Your task to perform on an android device: clear history in the chrome app Image 0: 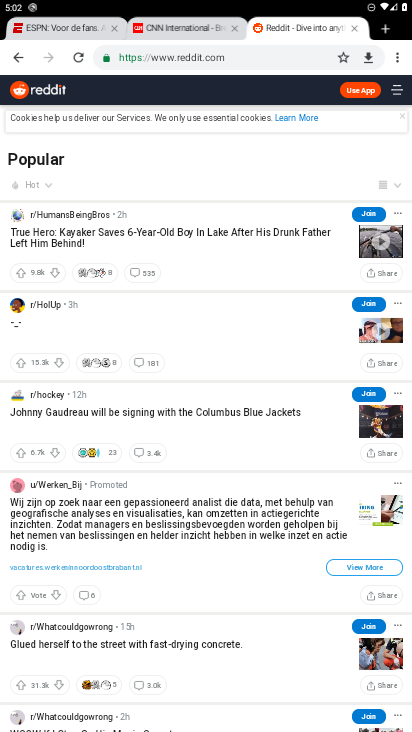
Step 0: press home button
Your task to perform on an android device: clear history in the chrome app Image 1: 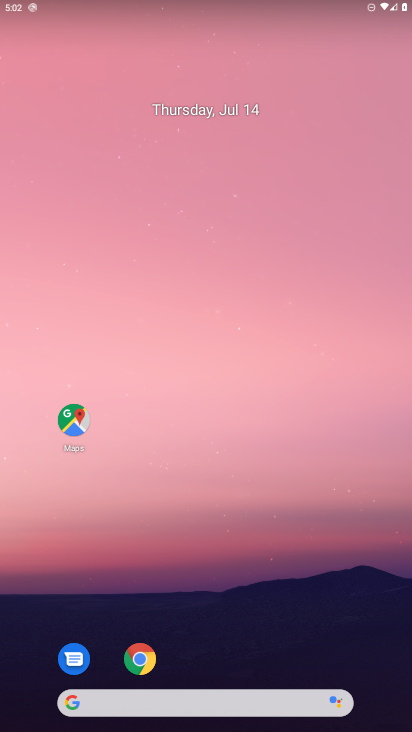
Step 1: click (145, 654)
Your task to perform on an android device: clear history in the chrome app Image 2: 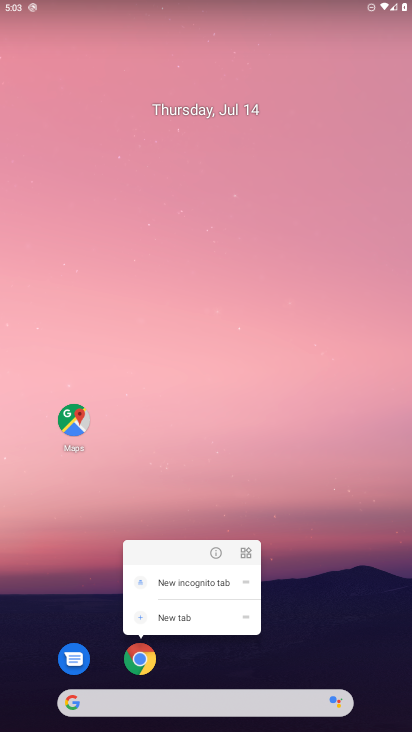
Step 2: click (145, 655)
Your task to perform on an android device: clear history in the chrome app Image 3: 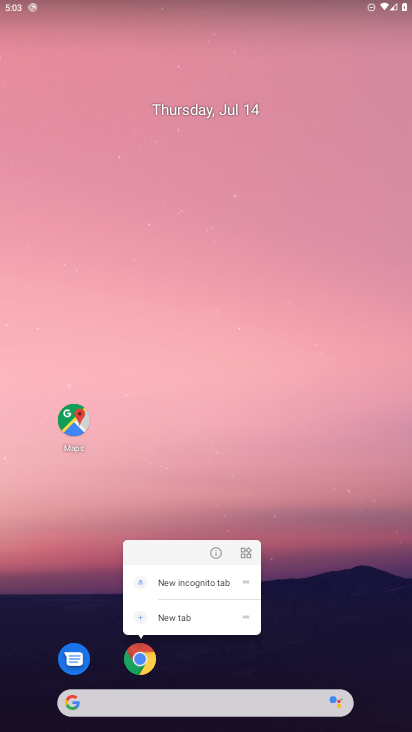
Step 3: click (131, 662)
Your task to perform on an android device: clear history in the chrome app Image 4: 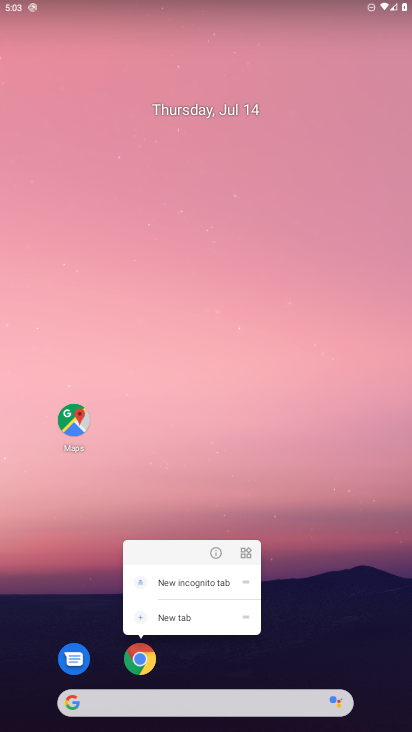
Step 4: click (147, 653)
Your task to perform on an android device: clear history in the chrome app Image 5: 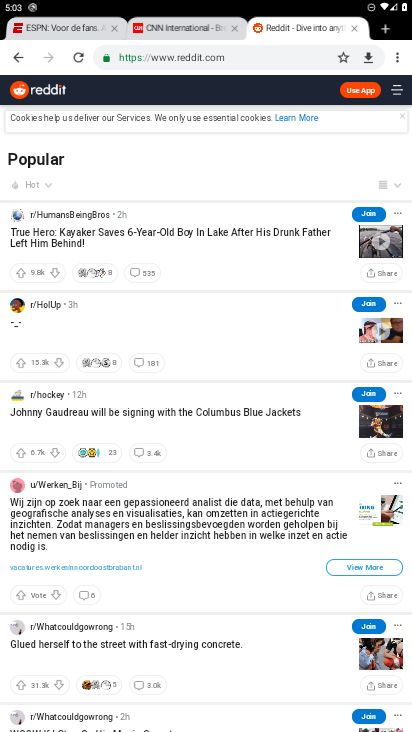
Step 5: click (391, 56)
Your task to perform on an android device: clear history in the chrome app Image 6: 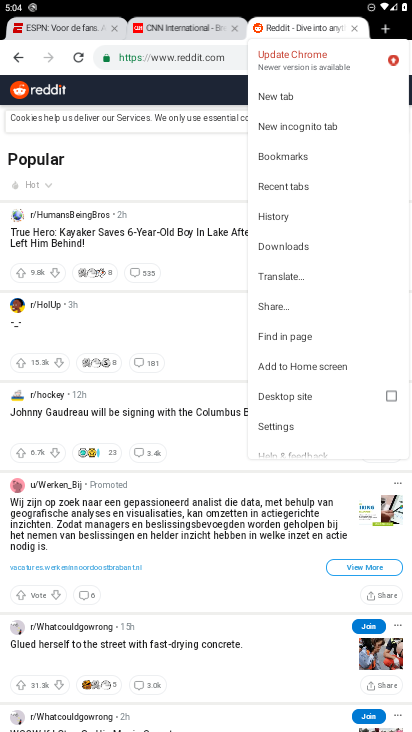
Step 6: click (295, 216)
Your task to perform on an android device: clear history in the chrome app Image 7: 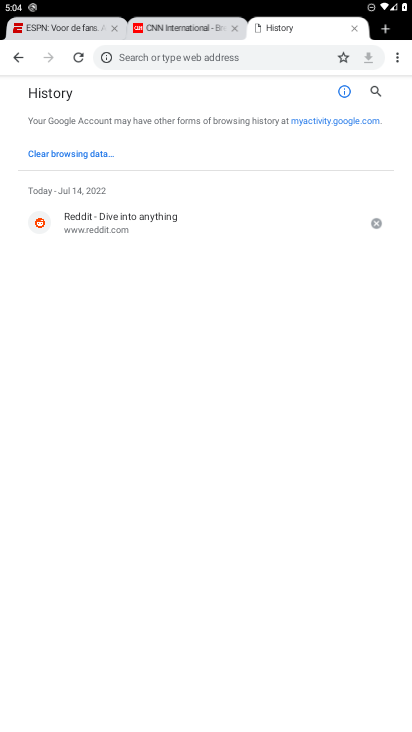
Step 7: click (53, 149)
Your task to perform on an android device: clear history in the chrome app Image 8: 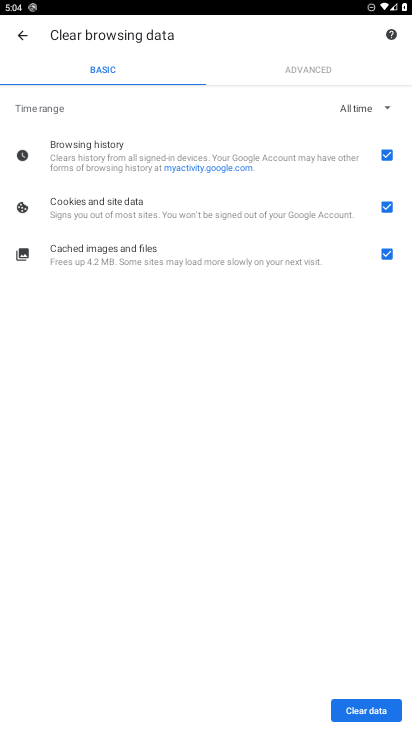
Step 8: click (379, 710)
Your task to perform on an android device: clear history in the chrome app Image 9: 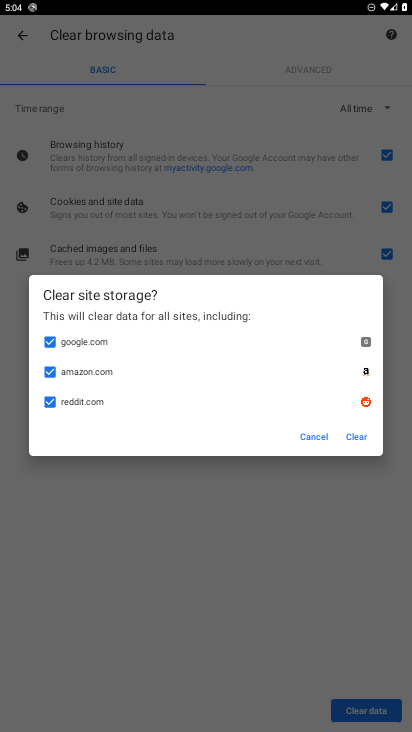
Step 9: click (357, 432)
Your task to perform on an android device: clear history in the chrome app Image 10: 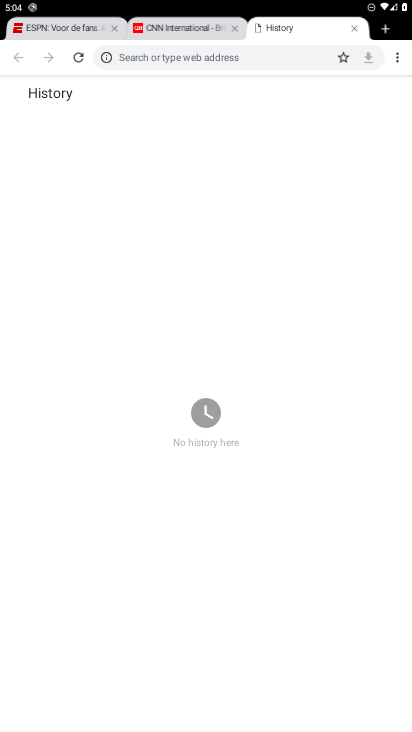
Step 10: task complete